Your task to perform on an android device: Open settings Image 0: 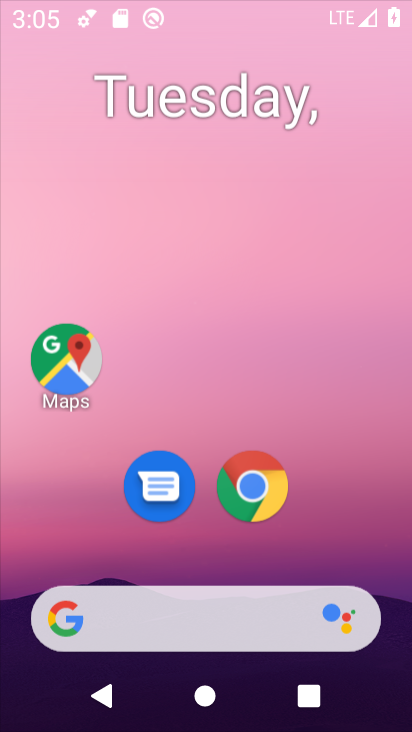
Step 0: press home button
Your task to perform on an android device: Open settings Image 1: 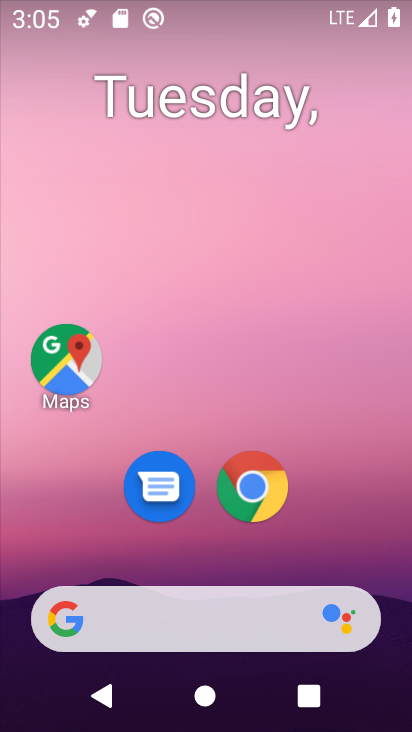
Step 1: drag from (217, 547) to (220, 66)
Your task to perform on an android device: Open settings Image 2: 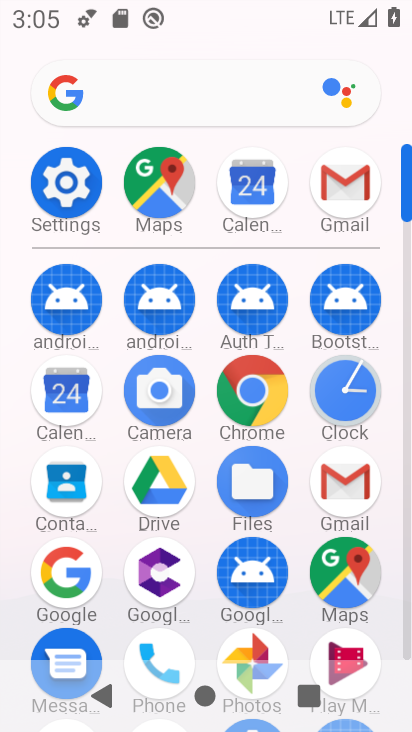
Step 2: click (71, 170)
Your task to perform on an android device: Open settings Image 3: 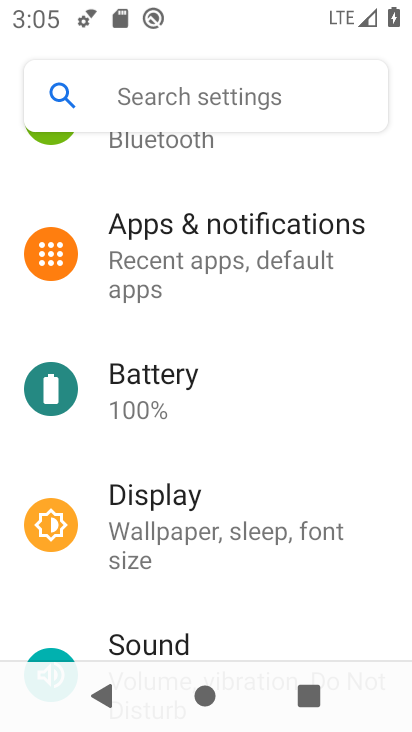
Step 3: task complete